Your task to perform on an android device: turn off smart reply in the gmail app Image 0: 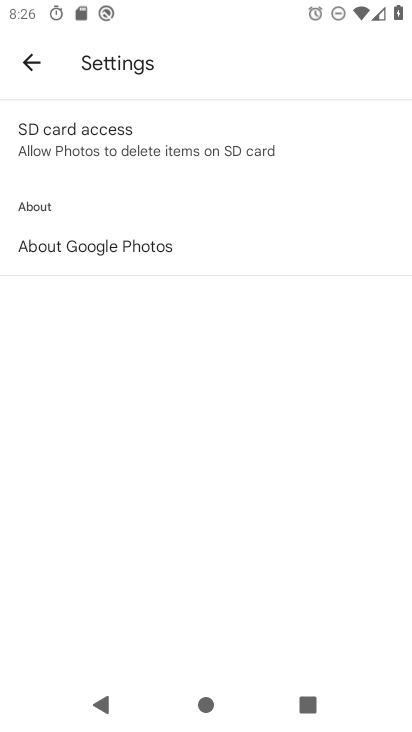
Step 0: press home button
Your task to perform on an android device: turn off smart reply in the gmail app Image 1: 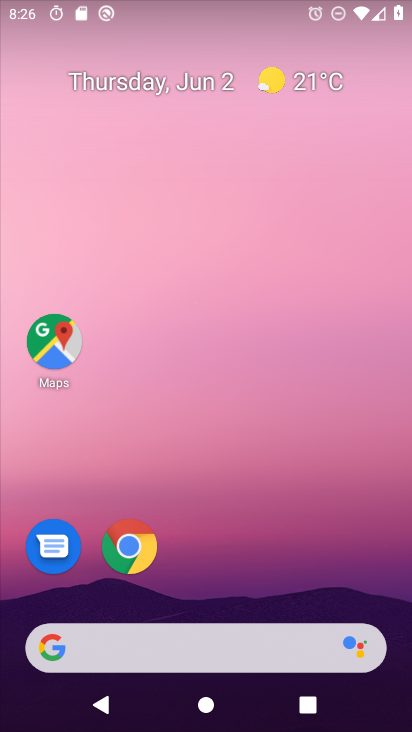
Step 1: drag from (361, 530) to (358, 143)
Your task to perform on an android device: turn off smart reply in the gmail app Image 2: 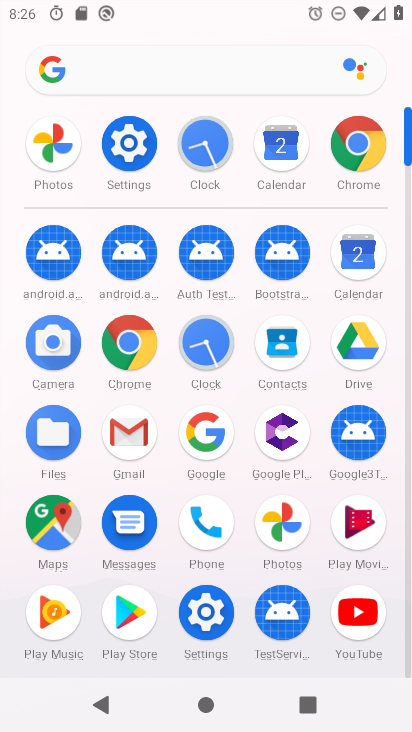
Step 2: click (144, 432)
Your task to perform on an android device: turn off smart reply in the gmail app Image 3: 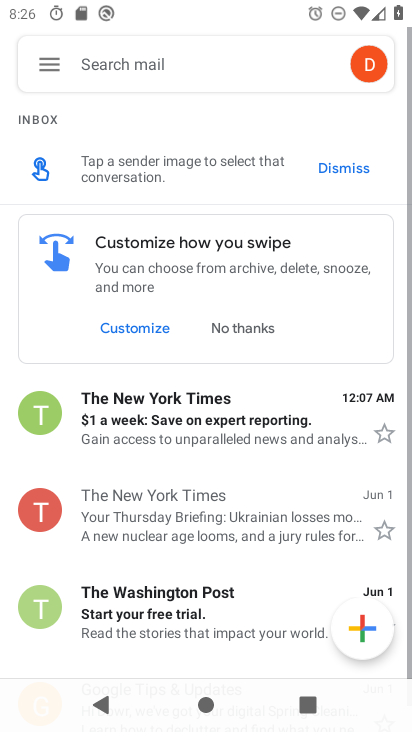
Step 3: click (58, 54)
Your task to perform on an android device: turn off smart reply in the gmail app Image 4: 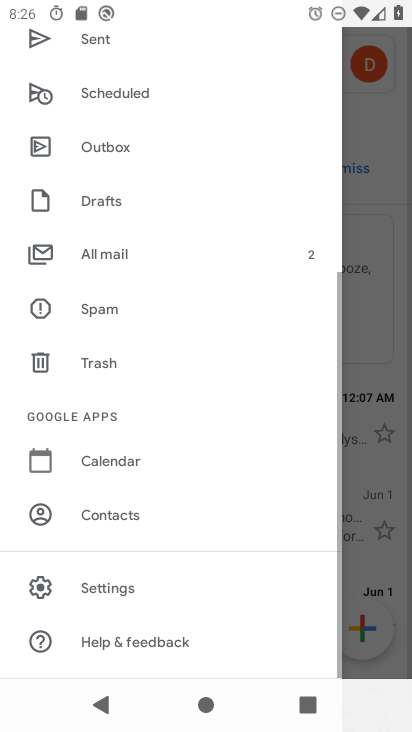
Step 4: drag from (164, 536) to (228, 186)
Your task to perform on an android device: turn off smart reply in the gmail app Image 5: 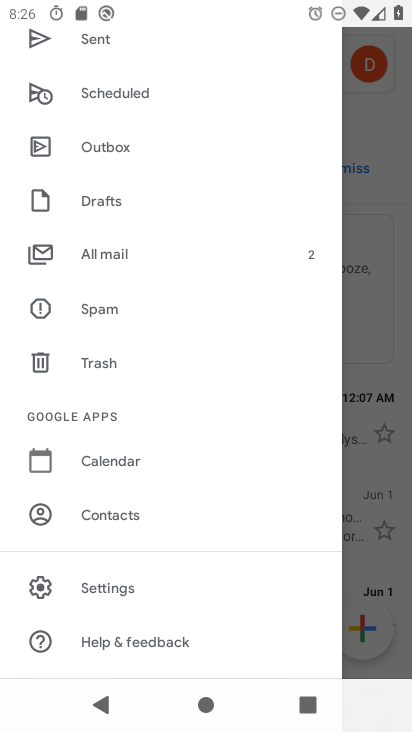
Step 5: click (188, 599)
Your task to perform on an android device: turn off smart reply in the gmail app Image 6: 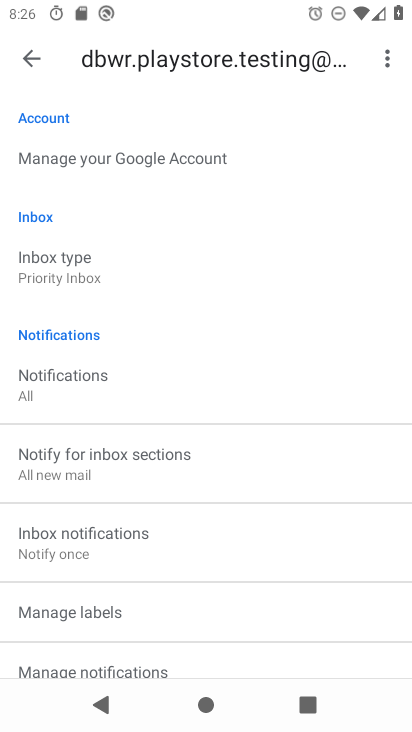
Step 6: drag from (201, 598) to (258, 306)
Your task to perform on an android device: turn off smart reply in the gmail app Image 7: 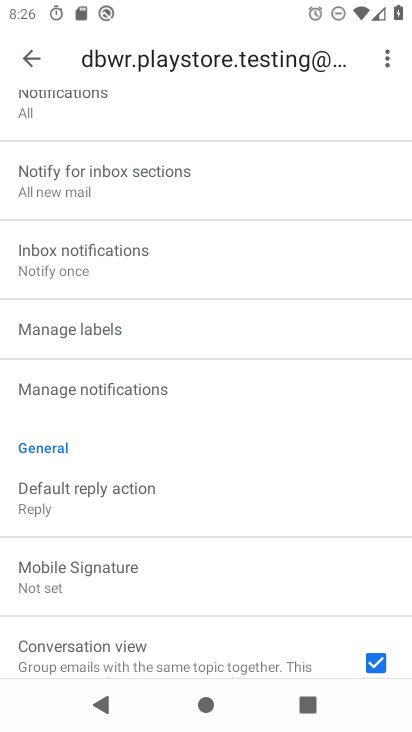
Step 7: drag from (121, 563) to (198, 368)
Your task to perform on an android device: turn off smart reply in the gmail app Image 8: 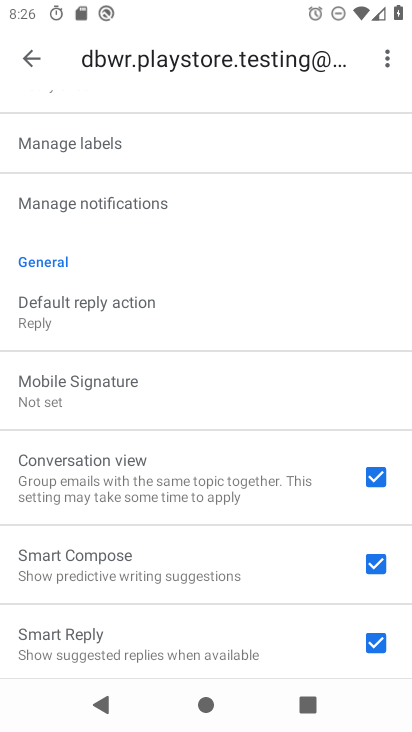
Step 8: drag from (206, 601) to (249, 357)
Your task to perform on an android device: turn off smart reply in the gmail app Image 9: 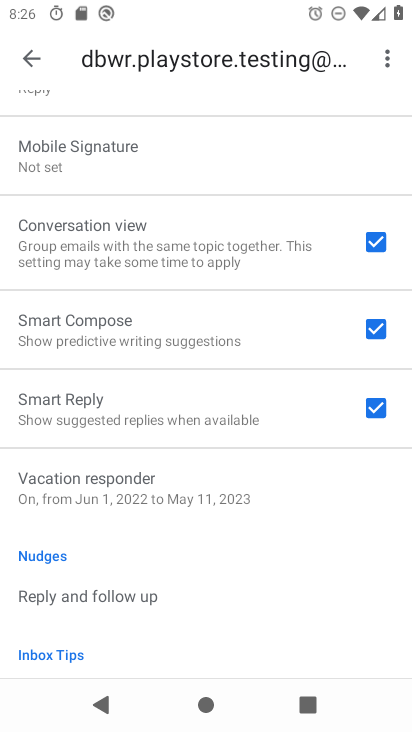
Step 9: click (379, 414)
Your task to perform on an android device: turn off smart reply in the gmail app Image 10: 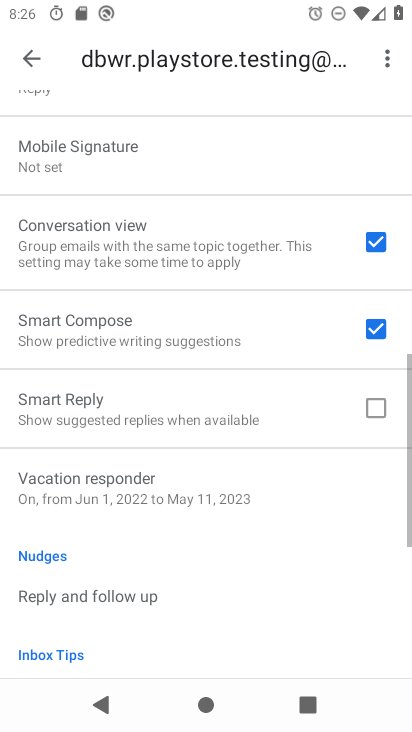
Step 10: task complete